Your task to perform on an android device: toggle sleep mode Image 0: 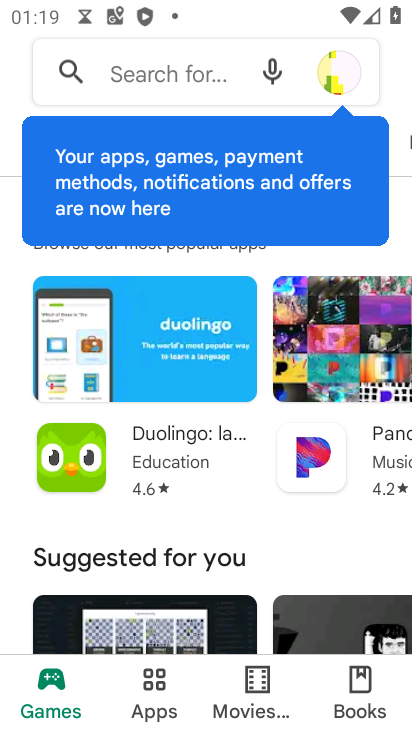
Step 0: press home button
Your task to perform on an android device: toggle sleep mode Image 1: 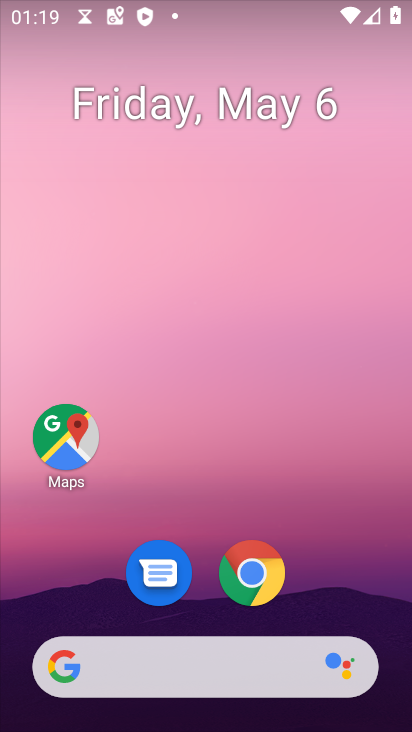
Step 1: drag from (320, 375) to (332, 290)
Your task to perform on an android device: toggle sleep mode Image 2: 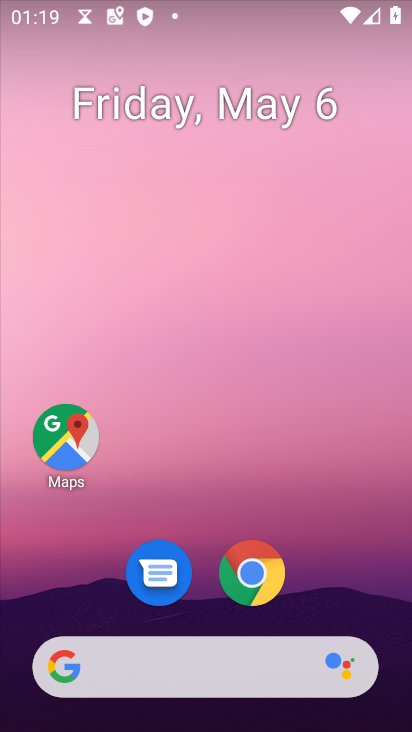
Step 2: drag from (313, 613) to (319, 185)
Your task to perform on an android device: toggle sleep mode Image 3: 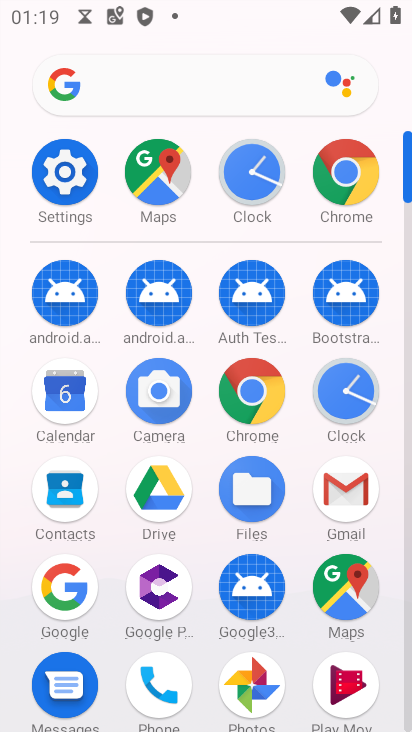
Step 3: click (45, 163)
Your task to perform on an android device: toggle sleep mode Image 4: 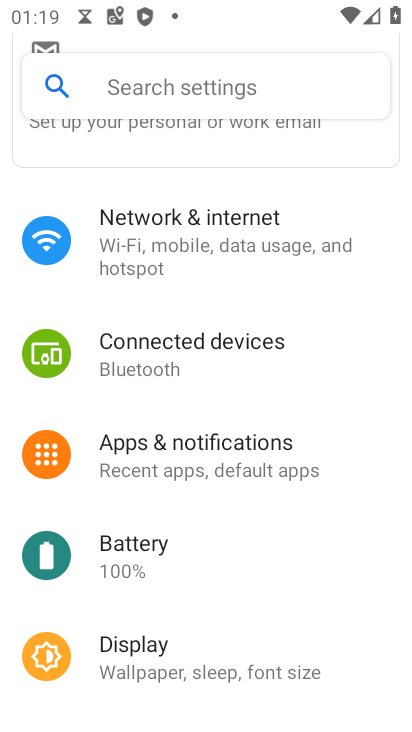
Step 4: task complete